Your task to perform on an android device: open wifi settings Image 0: 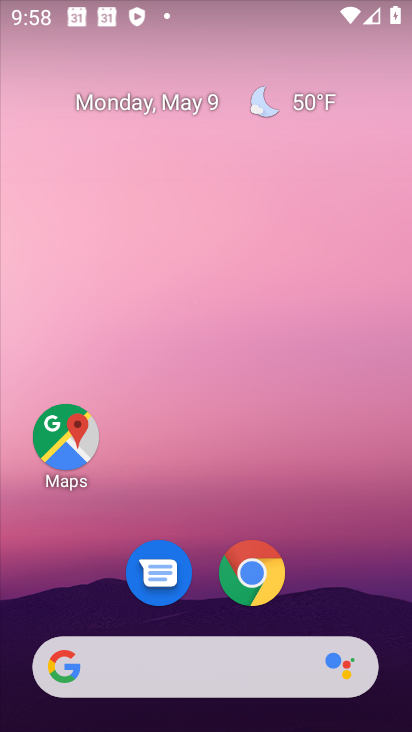
Step 0: drag from (343, 589) to (338, 159)
Your task to perform on an android device: open wifi settings Image 1: 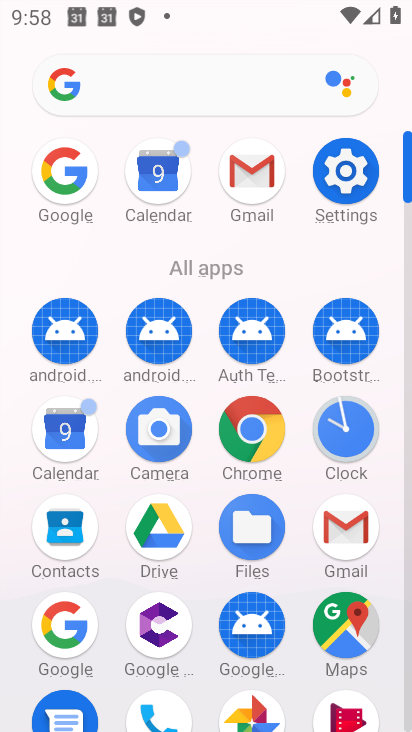
Step 1: click (354, 169)
Your task to perform on an android device: open wifi settings Image 2: 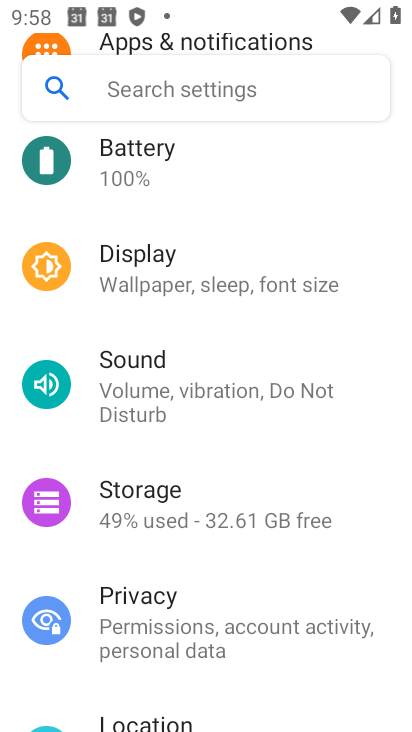
Step 2: drag from (242, 182) to (195, 616)
Your task to perform on an android device: open wifi settings Image 3: 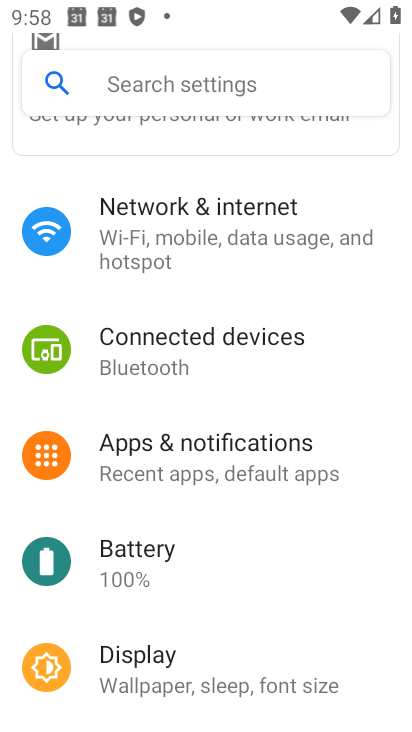
Step 3: drag from (171, 254) to (194, 670)
Your task to perform on an android device: open wifi settings Image 4: 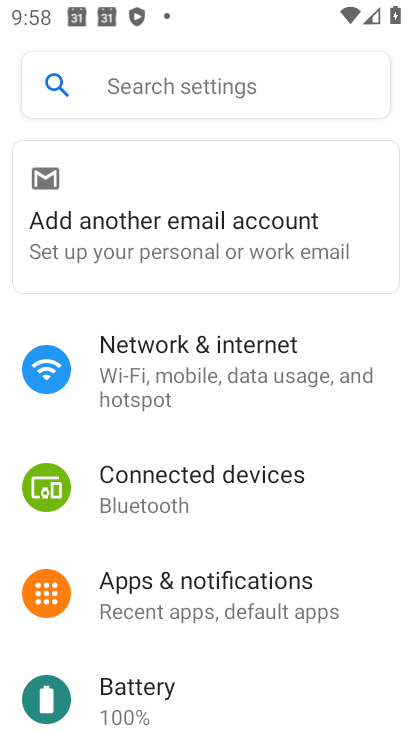
Step 4: click (179, 362)
Your task to perform on an android device: open wifi settings Image 5: 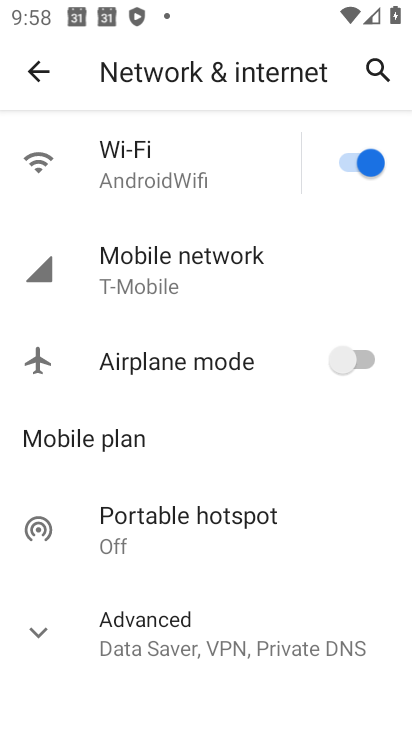
Step 5: click (144, 144)
Your task to perform on an android device: open wifi settings Image 6: 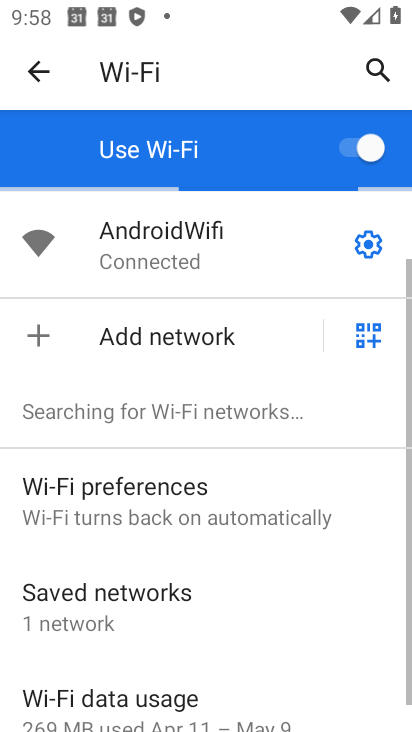
Step 6: click (356, 240)
Your task to perform on an android device: open wifi settings Image 7: 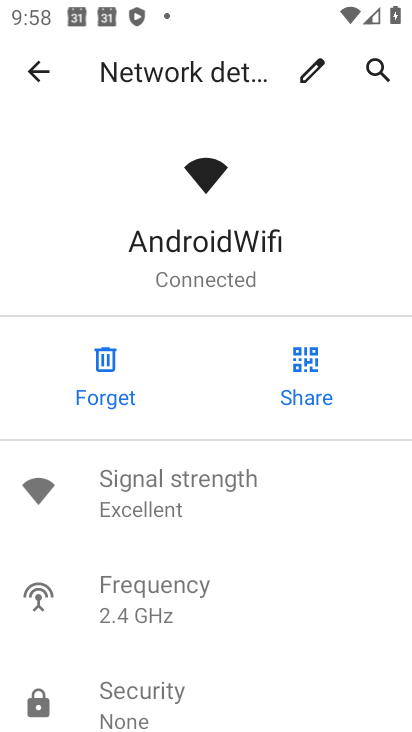
Step 7: task complete